Your task to perform on an android device: find which apps use the phone's location Image 0: 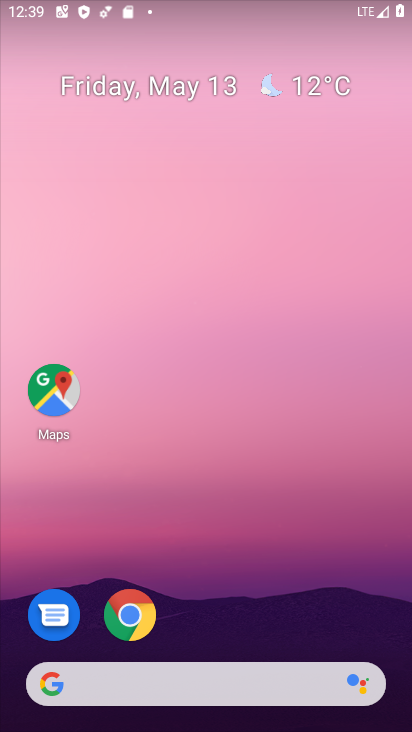
Step 0: drag from (203, 620) to (233, 164)
Your task to perform on an android device: find which apps use the phone's location Image 1: 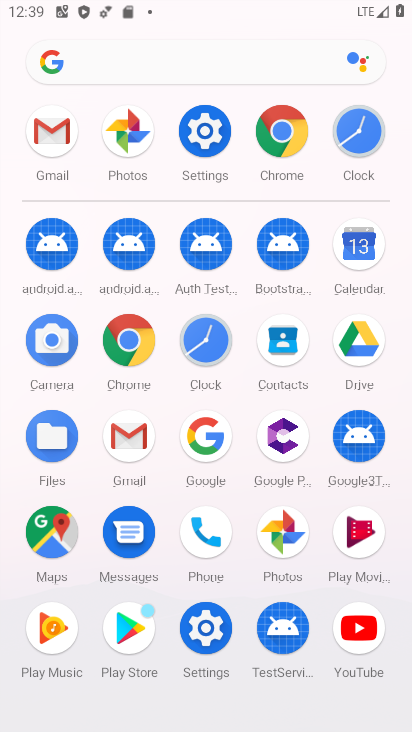
Step 1: click (205, 147)
Your task to perform on an android device: find which apps use the phone's location Image 2: 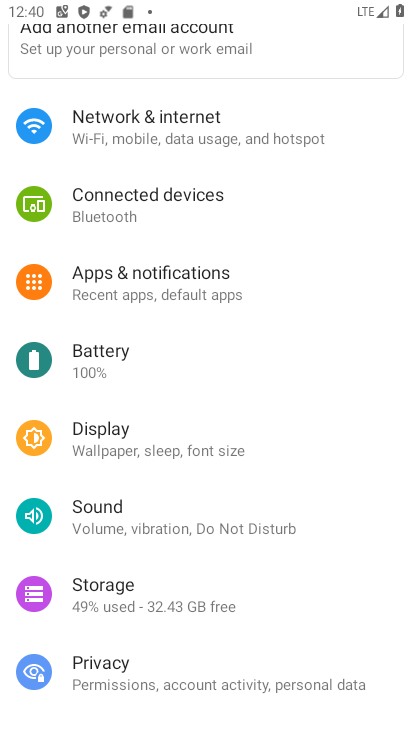
Step 2: drag from (207, 581) to (214, 408)
Your task to perform on an android device: find which apps use the phone's location Image 3: 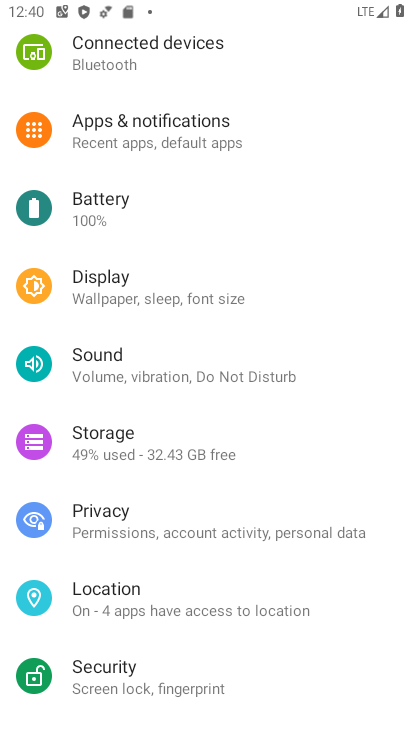
Step 3: drag from (168, 595) to (185, 438)
Your task to perform on an android device: find which apps use the phone's location Image 4: 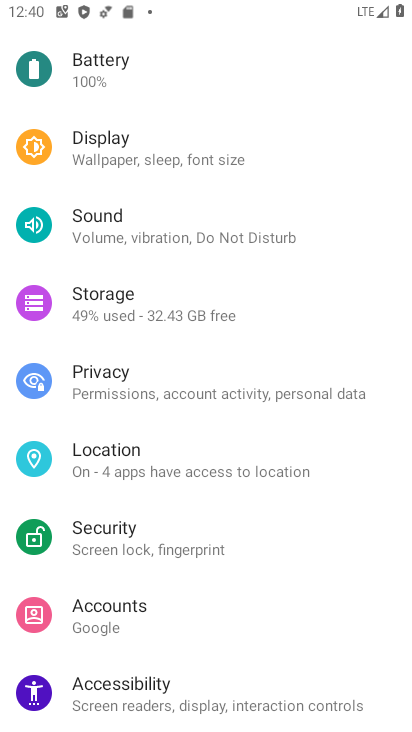
Step 4: drag from (163, 633) to (169, 594)
Your task to perform on an android device: find which apps use the phone's location Image 5: 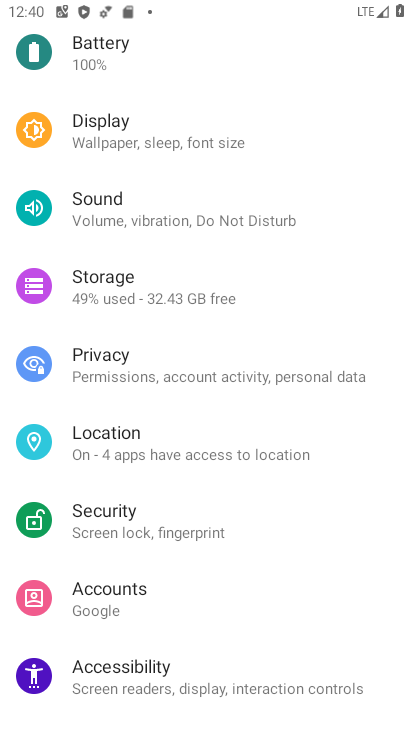
Step 5: click (137, 457)
Your task to perform on an android device: find which apps use the phone's location Image 6: 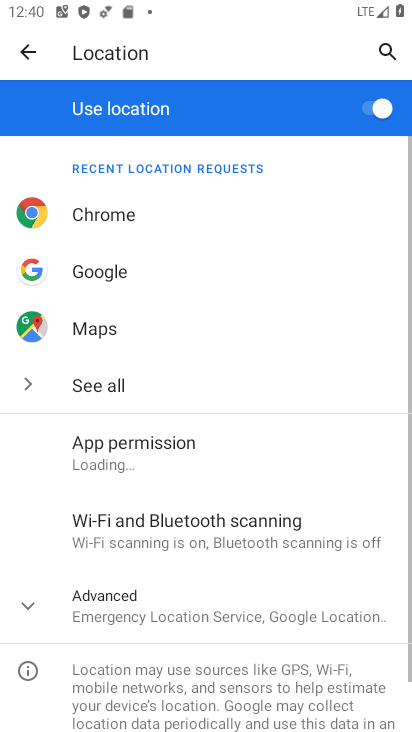
Step 6: drag from (225, 619) to (221, 374)
Your task to perform on an android device: find which apps use the phone's location Image 7: 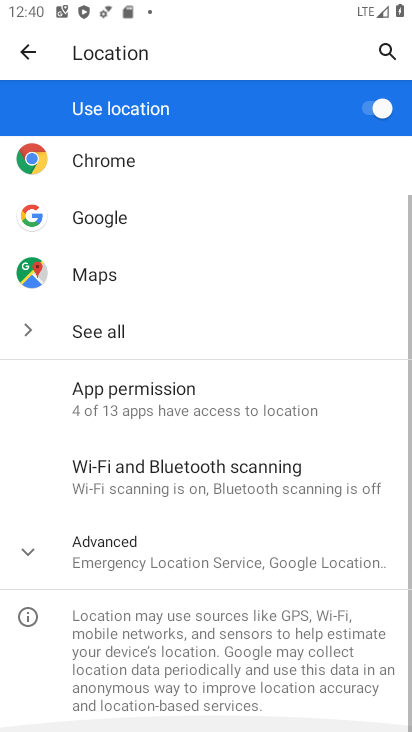
Step 7: click (197, 384)
Your task to perform on an android device: find which apps use the phone's location Image 8: 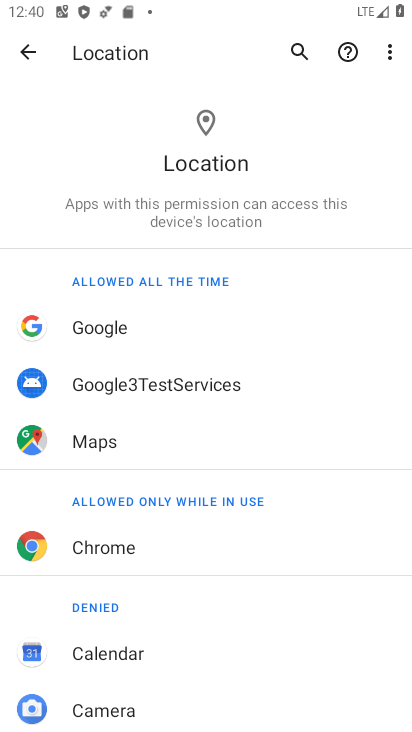
Step 8: task complete